Your task to perform on an android device: Go to Amazon Image 0: 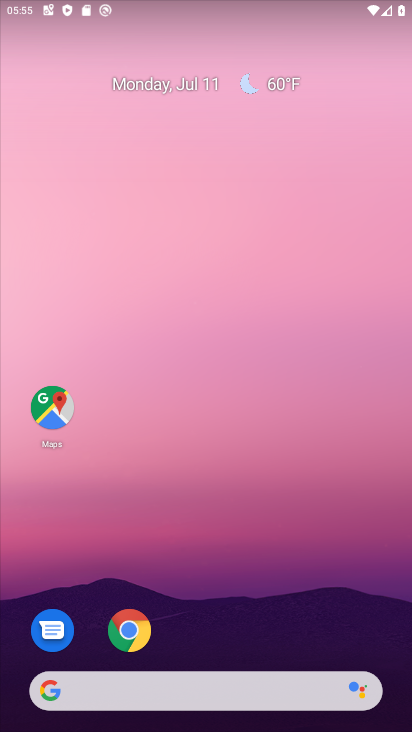
Step 0: click (132, 632)
Your task to perform on an android device: Go to Amazon Image 1: 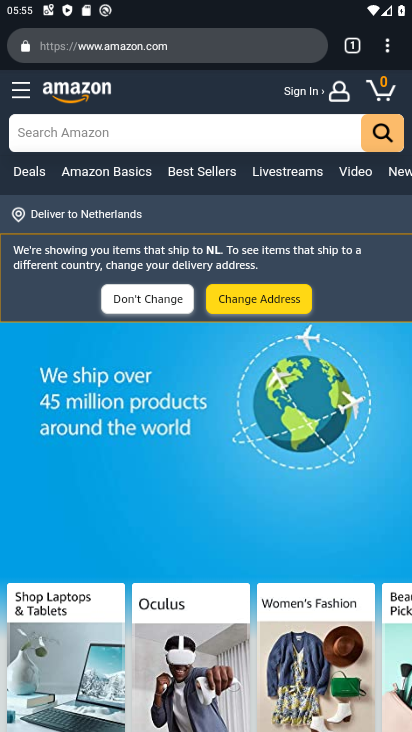
Step 1: task complete